Your task to perform on an android device: Show me recent news Image 0: 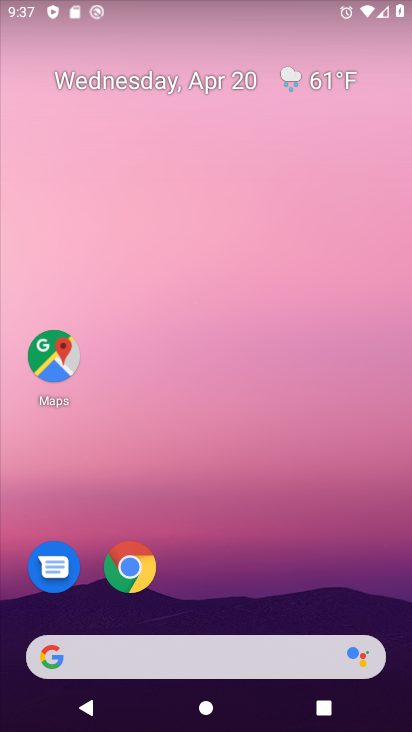
Step 0: drag from (198, 594) to (140, 159)
Your task to perform on an android device: Show me recent news Image 1: 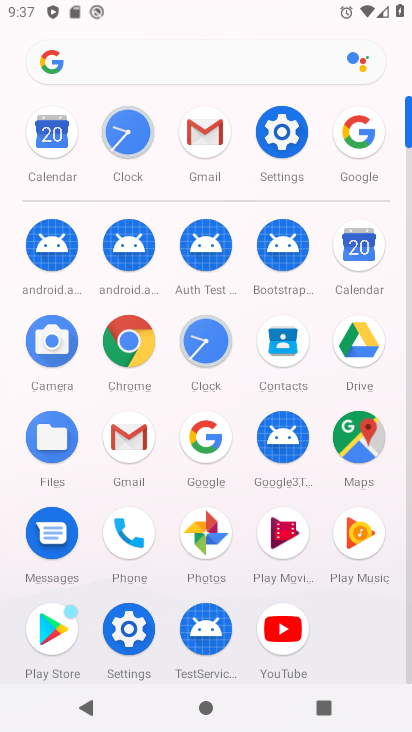
Step 1: click (190, 447)
Your task to perform on an android device: Show me recent news Image 2: 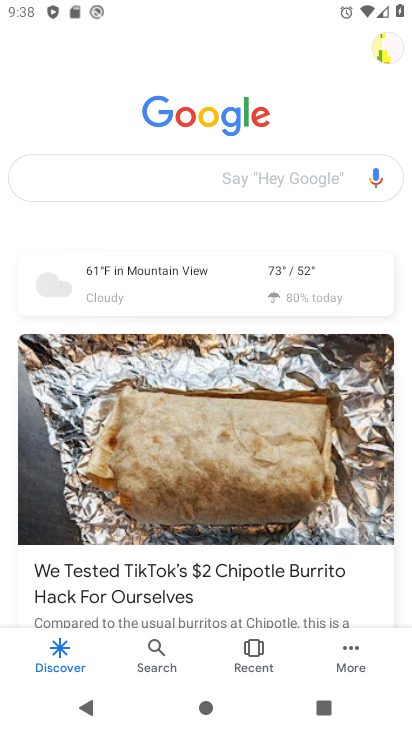
Step 2: click (229, 182)
Your task to perform on an android device: Show me recent news Image 3: 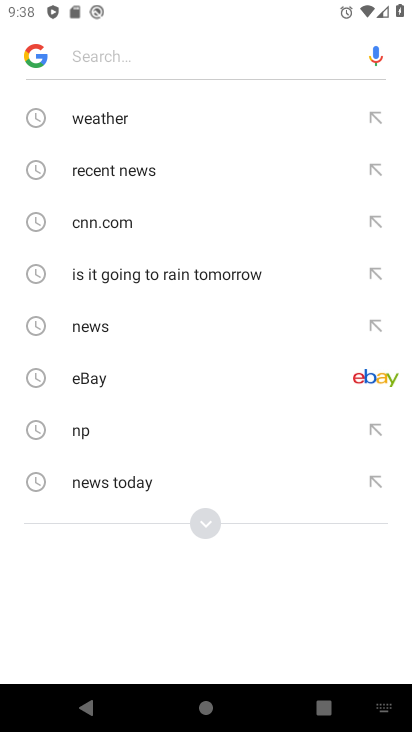
Step 3: click (112, 162)
Your task to perform on an android device: Show me recent news Image 4: 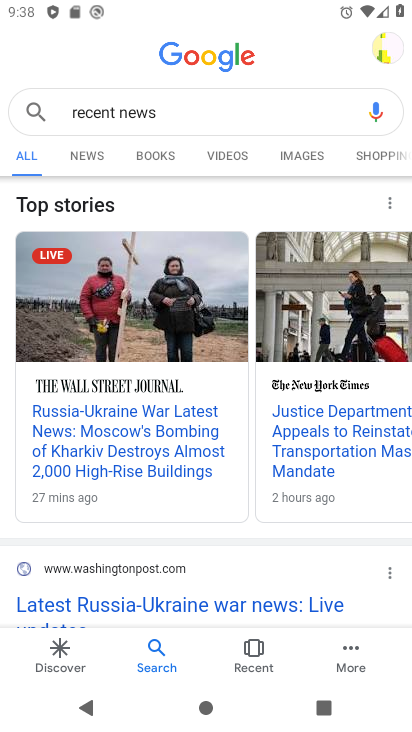
Step 4: task complete